Your task to perform on an android device: turn pop-ups off in chrome Image 0: 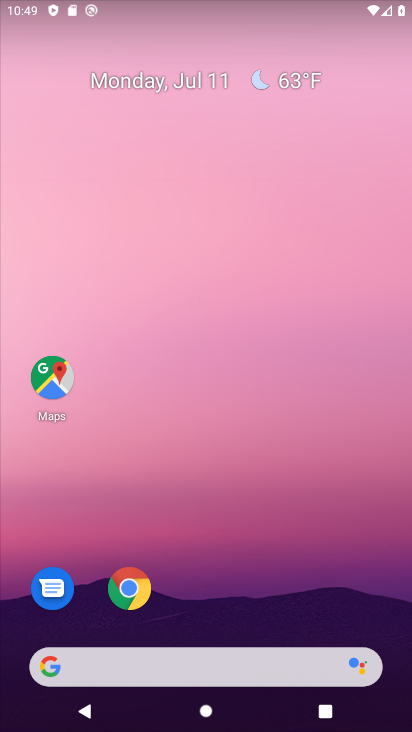
Step 0: click (133, 592)
Your task to perform on an android device: turn pop-ups off in chrome Image 1: 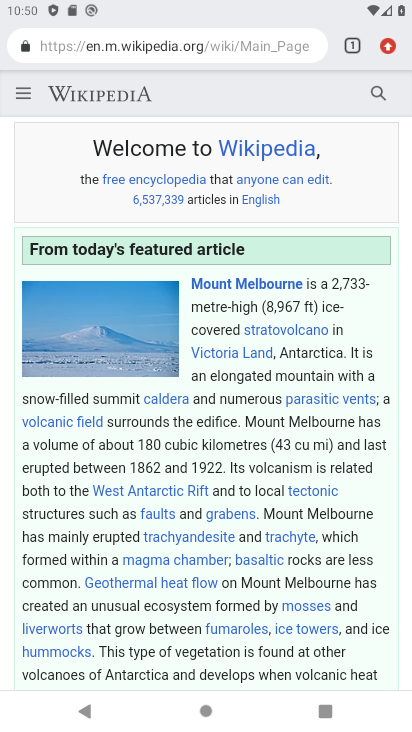
Step 1: click (386, 47)
Your task to perform on an android device: turn pop-ups off in chrome Image 2: 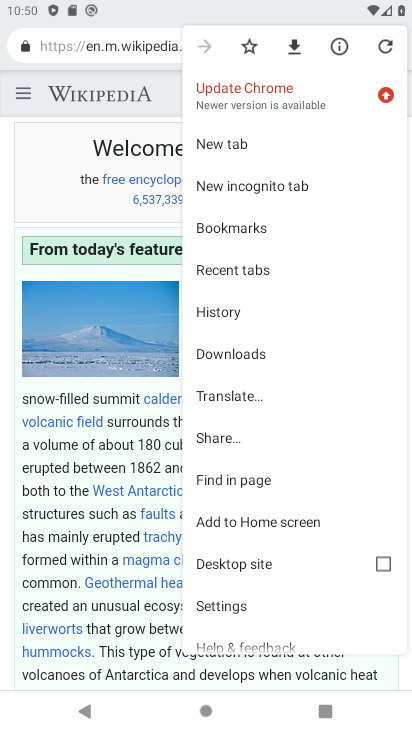
Step 2: click (217, 604)
Your task to perform on an android device: turn pop-ups off in chrome Image 3: 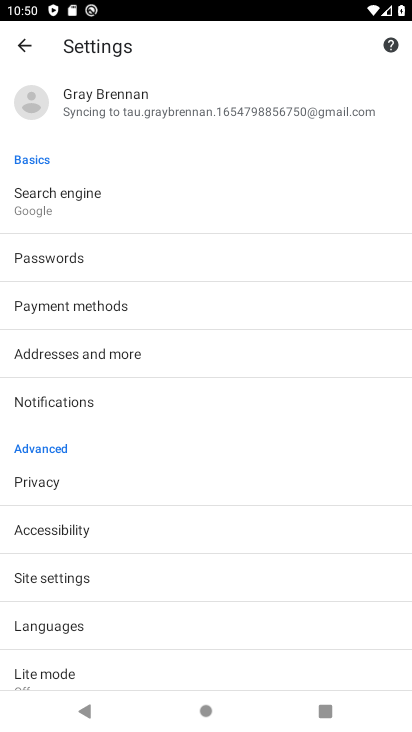
Step 3: click (57, 575)
Your task to perform on an android device: turn pop-ups off in chrome Image 4: 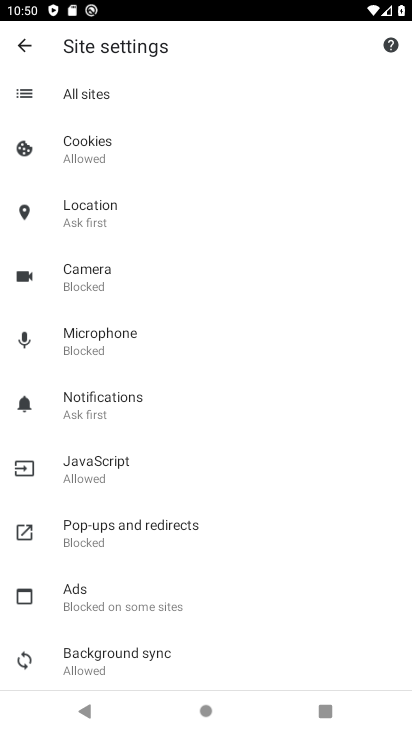
Step 4: click (88, 528)
Your task to perform on an android device: turn pop-ups off in chrome Image 5: 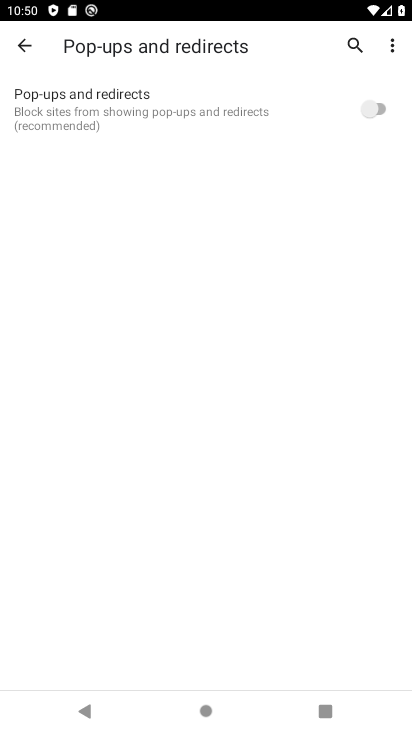
Step 5: task complete